Your task to perform on an android device: Open Chrome and go to the settings page Image 0: 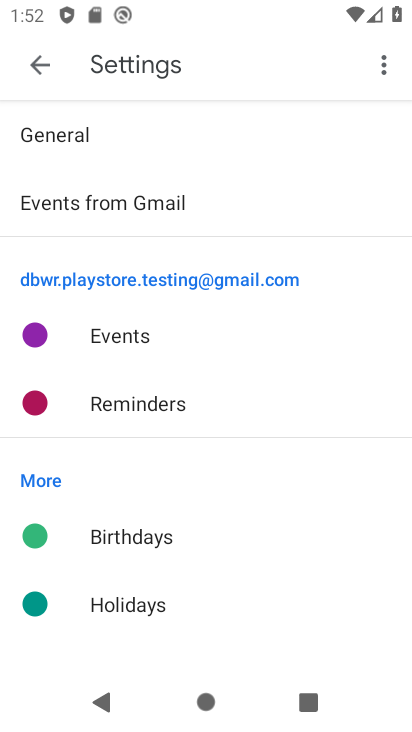
Step 0: press back button
Your task to perform on an android device: Open Chrome and go to the settings page Image 1: 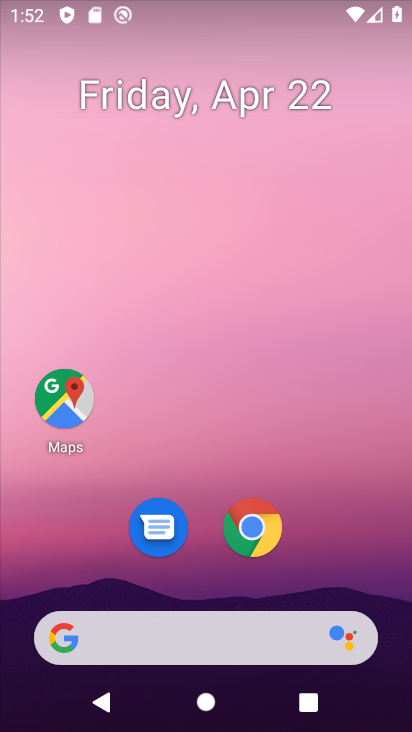
Step 1: drag from (383, 581) to (254, 65)
Your task to perform on an android device: Open Chrome and go to the settings page Image 2: 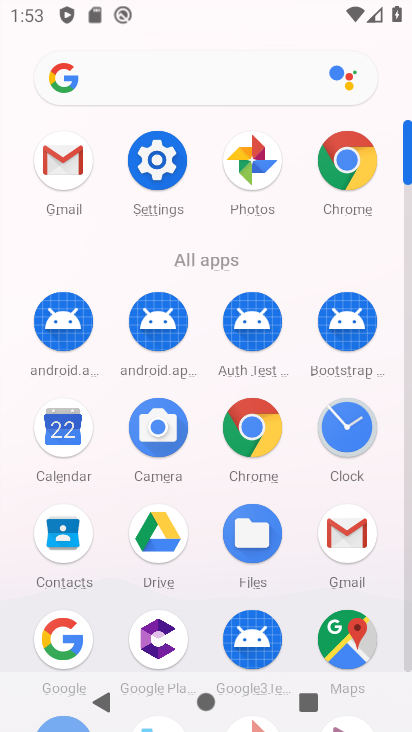
Step 2: click (252, 449)
Your task to perform on an android device: Open Chrome and go to the settings page Image 3: 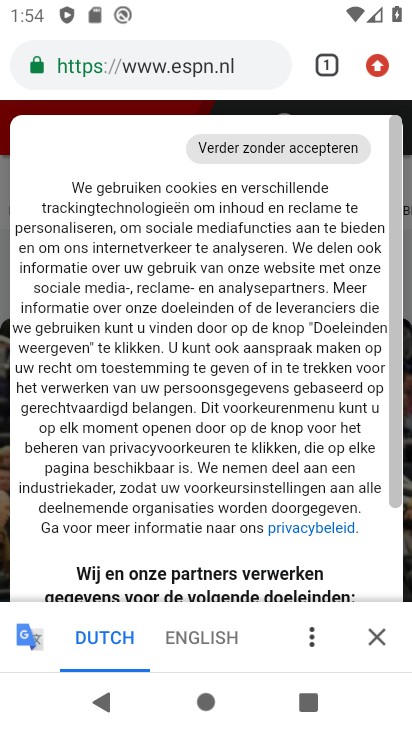
Step 3: press back button
Your task to perform on an android device: Open Chrome and go to the settings page Image 4: 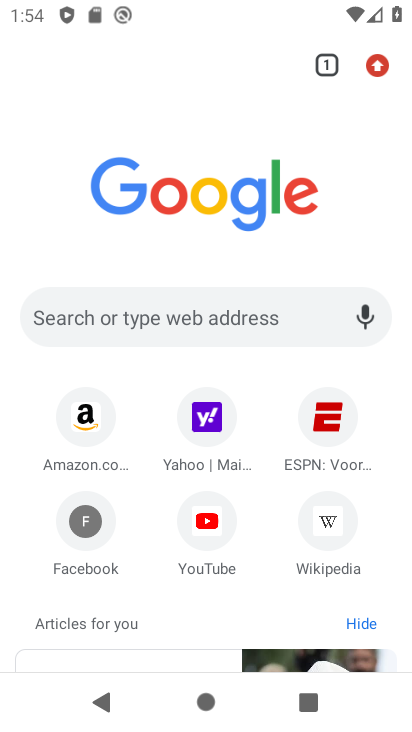
Step 4: click (375, 61)
Your task to perform on an android device: Open Chrome and go to the settings page Image 5: 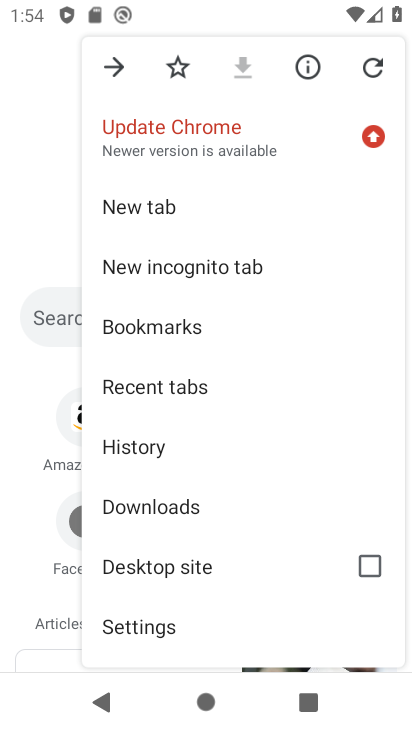
Step 5: click (176, 623)
Your task to perform on an android device: Open Chrome and go to the settings page Image 6: 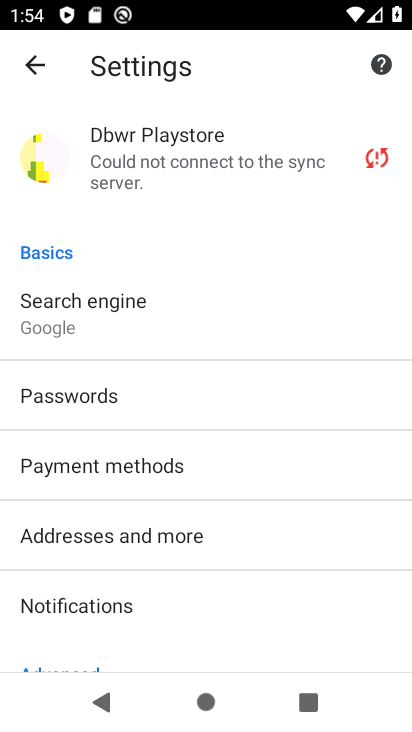
Step 6: task complete